Your task to perform on an android device: Open calendar and show me the fourth week of next month Image 0: 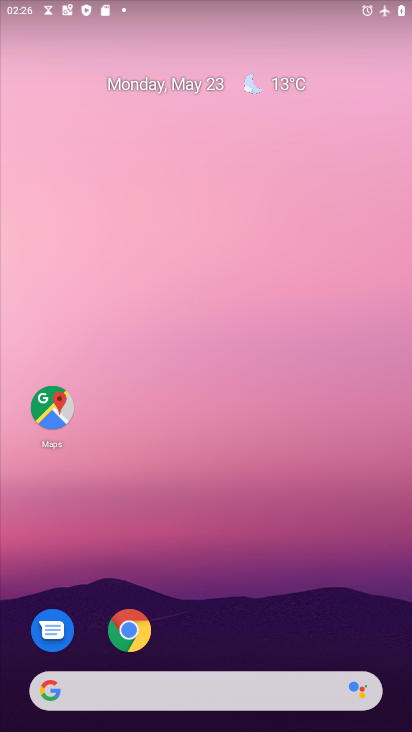
Step 0: click (181, 77)
Your task to perform on an android device: Open calendar and show me the fourth week of next month Image 1: 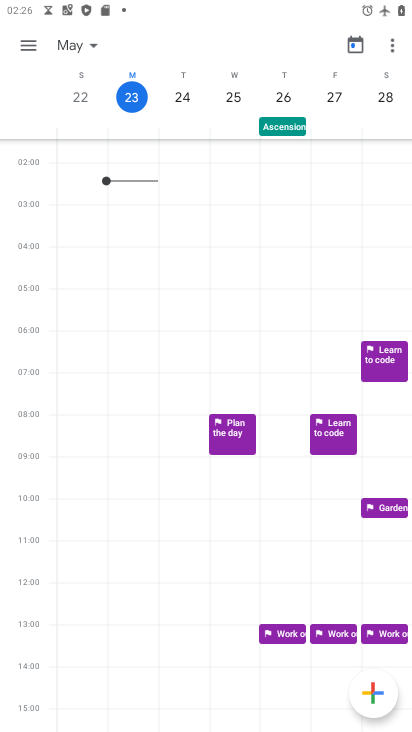
Step 1: click (90, 41)
Your task to perform on an android device: Open calendar and show me the fourth week of next month Image 2: 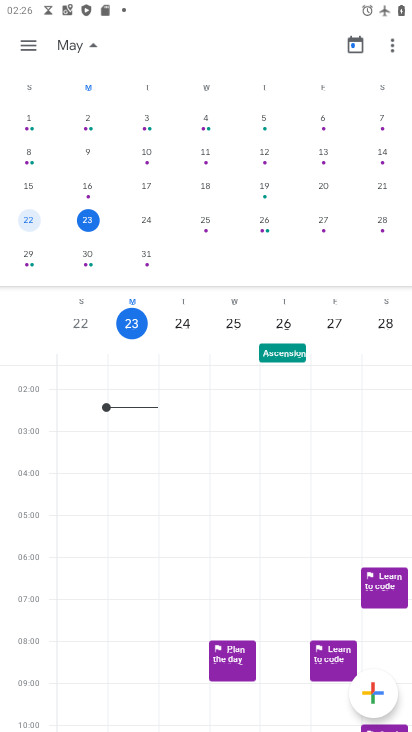
Step 2: drag from (353, 163) to (5, 233)
Your task to perform on an android device: Open calendar and show me the fourth week of next month Image 3: 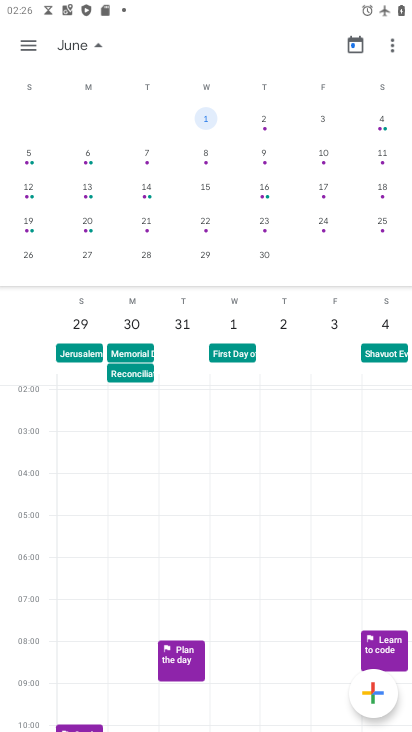
Step 3: click (26, 224)
Your task to perform on an android device: Open calendar and show me the fourth week of next month Image 4: 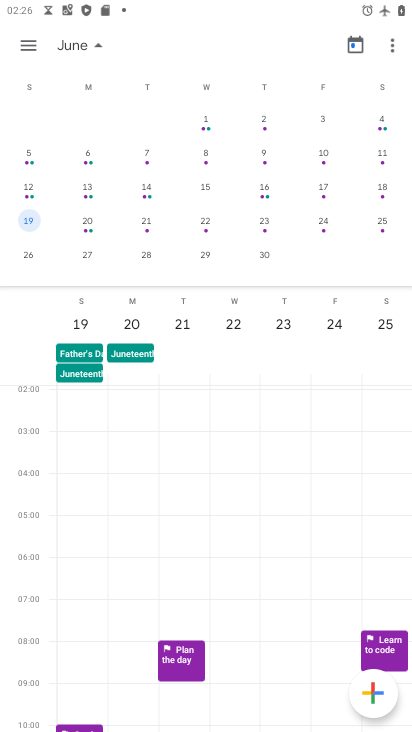
Step 4: task complete